Your task to perform on an android device: Search for pizza restaurants on Maps Image 0: 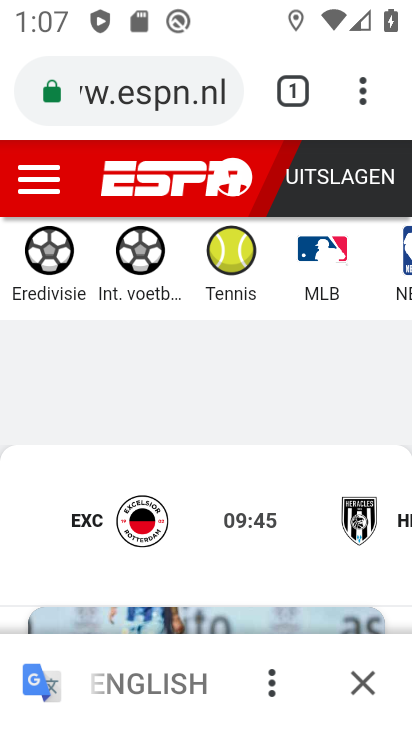
Step 0: press home button
Your task to perform on an android device: Search for pizza restaurants on Maps Image 1: 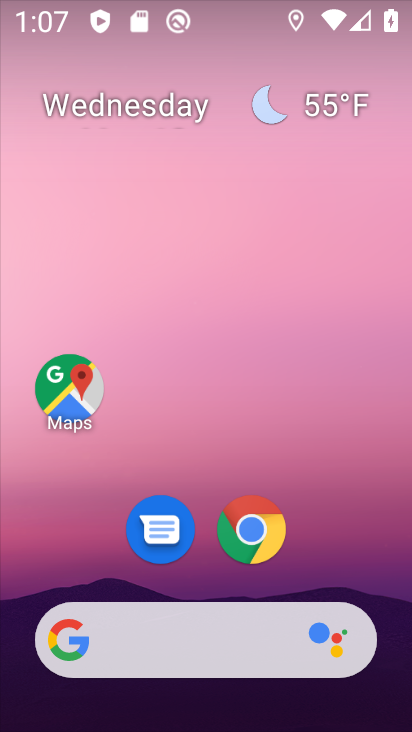
Step 1: drag from (206, 726) to (218, 189)
Your task to perform on an android device: Search for pizza restaurants on Maps Image 2: 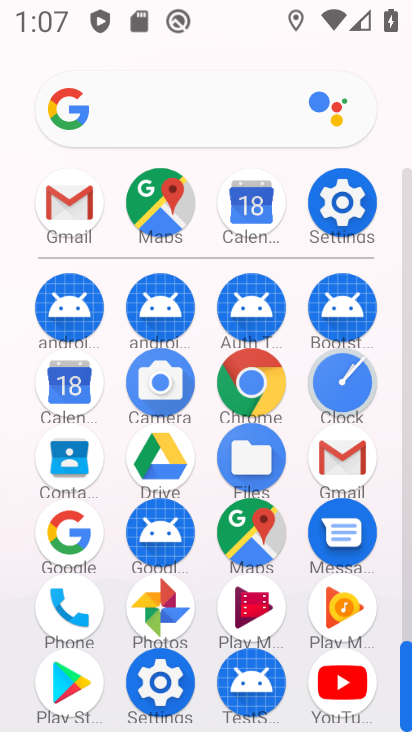
Step 2: click (254, 530)
Your task to perform on an android device: Search for pizza restaurants on Maps Image 3: 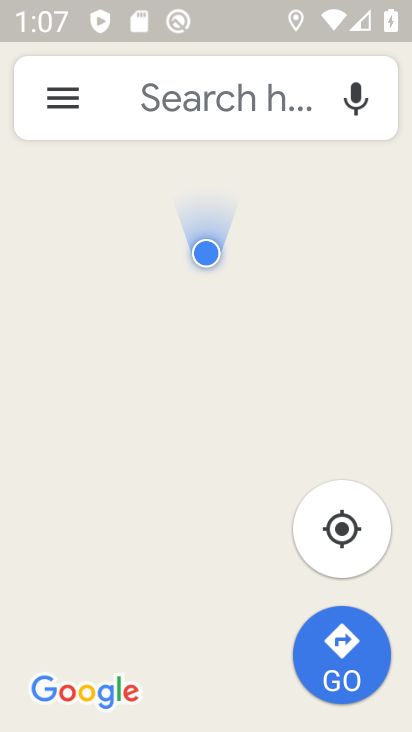
Step 3: click (225, 92)
Your task to perform on an android device: Search for pizza restaurants on Maps Image 4: 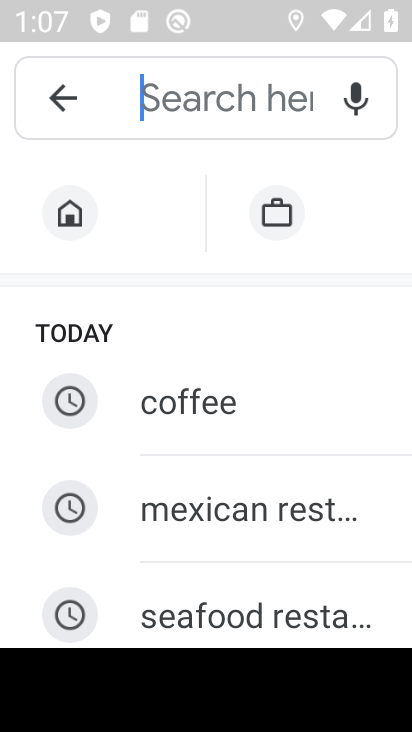
Step 4: type "pizza restaurants"
Your task to perform on an android device: Search for pizza restaurants on Maps Image 5: 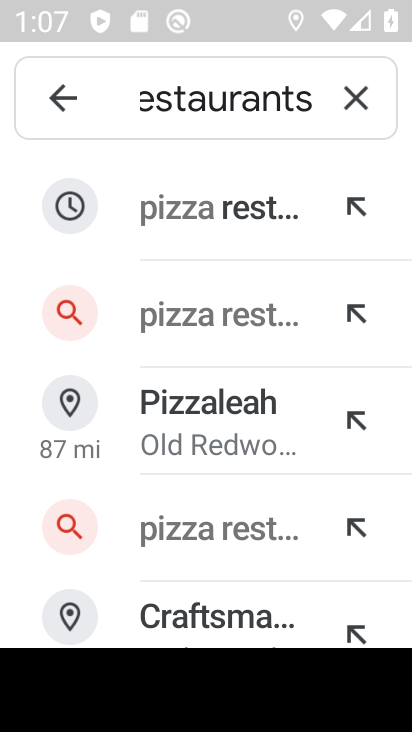
Step 5: click (237, 199)
Your task to perform on an android device: Search for pizza restaurants on Maps Image 6: 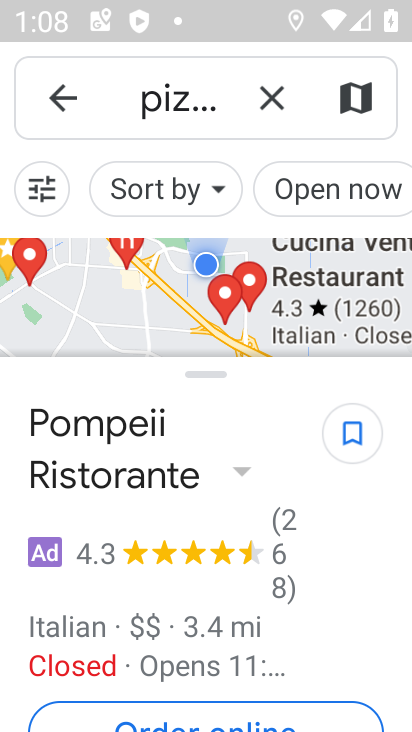
Step 6: task complete